Your task to perform on an android device: turn on javascript in the chrome app Image 0: 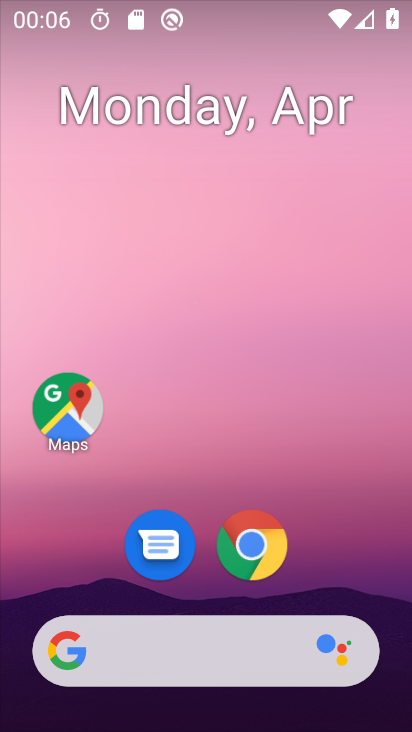
Step 0: drag from (315, 429) to (324, 197)
Your task to perform on an android device: turn on javascript in the chrome app Image 1: 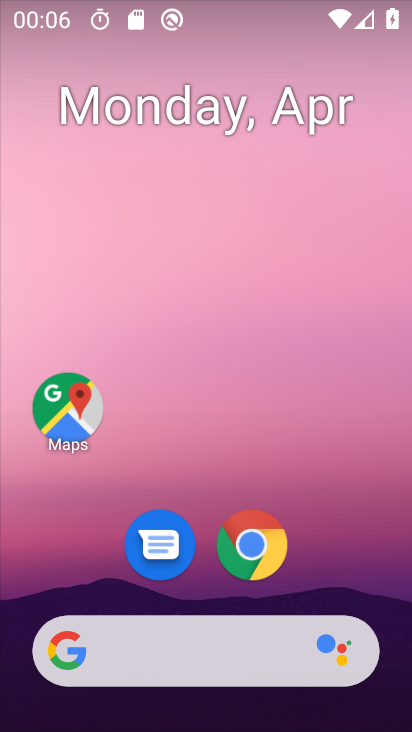
Step 1: drag from (331, 424) to (376, 81)
Your task to perform on an android device: turn on javascript in the chrome app Image 2: 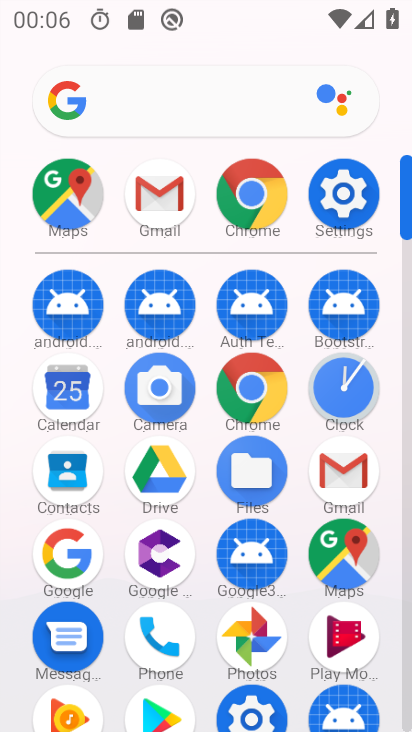
Step 2: click (238, 210)
Your task to perform on an android device: turn on javascript in the chrome app Image 3: 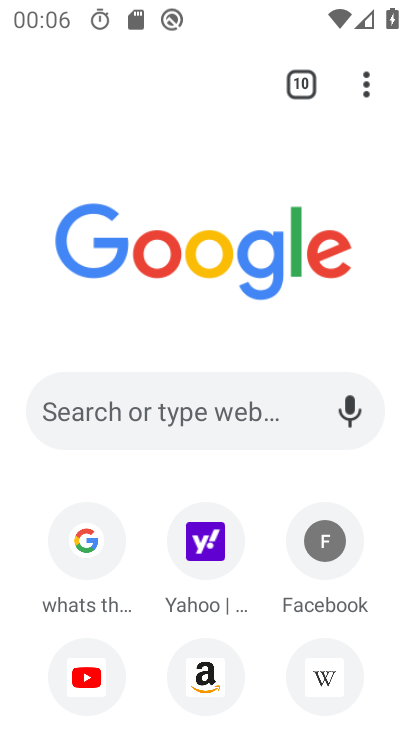
Step 3: click (349, 82)
Your task to perform on an android device: turn on javascript in the chrome app Image 4: 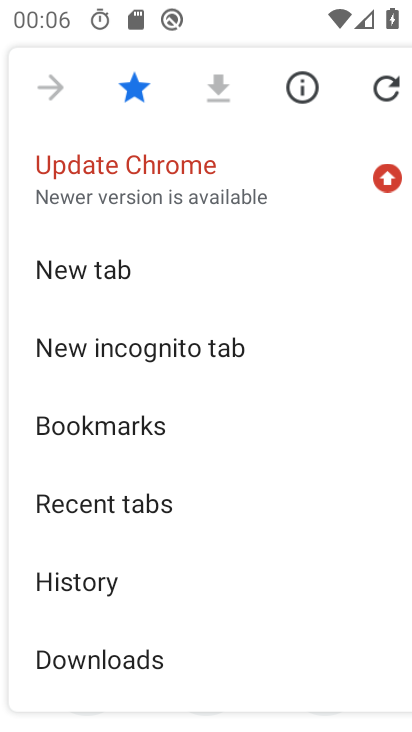
Step 4: drag from (205, 640) to (322, 146)
Your task to perform on an android device: turn on javascript in the chrome app Image 5: 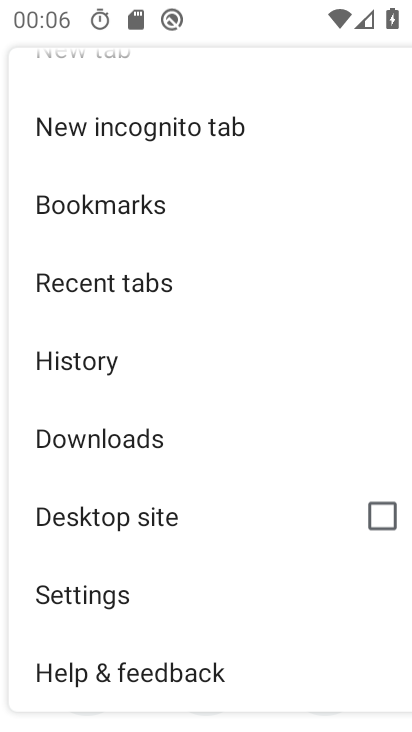
Step 5: click (104, 593)
Your task to perform on an android device: turn on javascript in the chrome app Image 6: 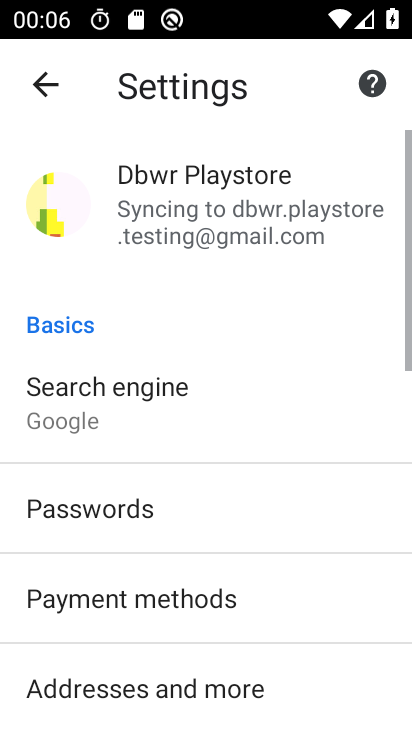
Step 6: drag from (216, 613) to (395, 125)
Your task to perform on an android device: turn on javascript in the chrome app Image 7: 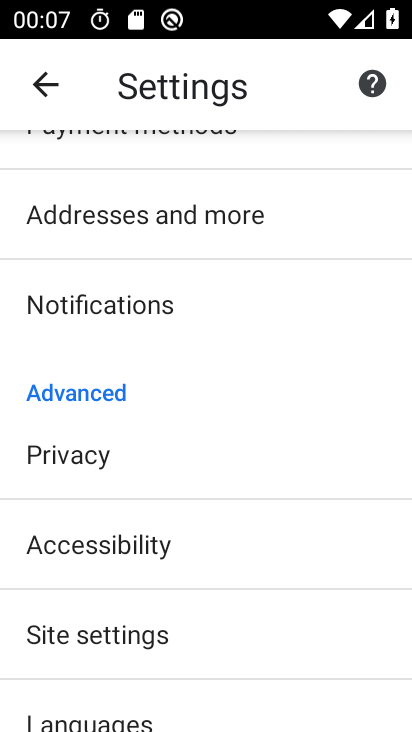
Step 7: drag from (166, 652) to (179, 578)
Your task to perform on an android device: turn on javascript in the chrome app Image 8: 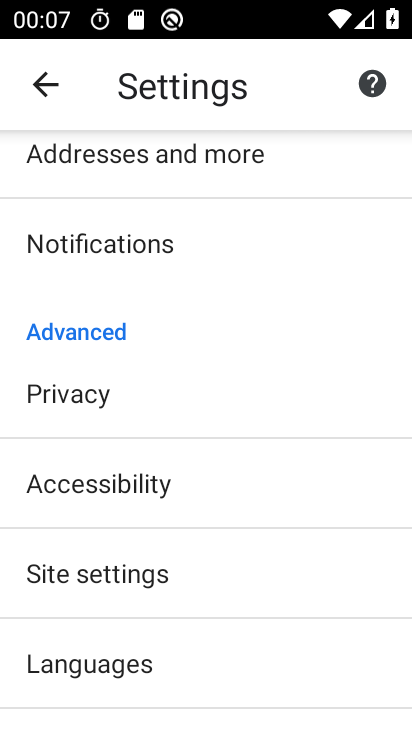
Step 8: click (174, 557)
Your task to perform on an android device: turn on javascript in the chrome app Image 9: 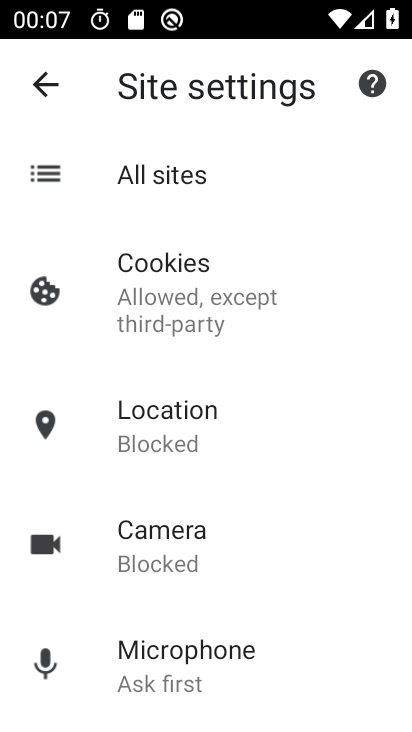
Step 9: drag from (228, 637) to (362, 206)
Your task to perform on an android device: turn on javascript in the chrome app Image 10: 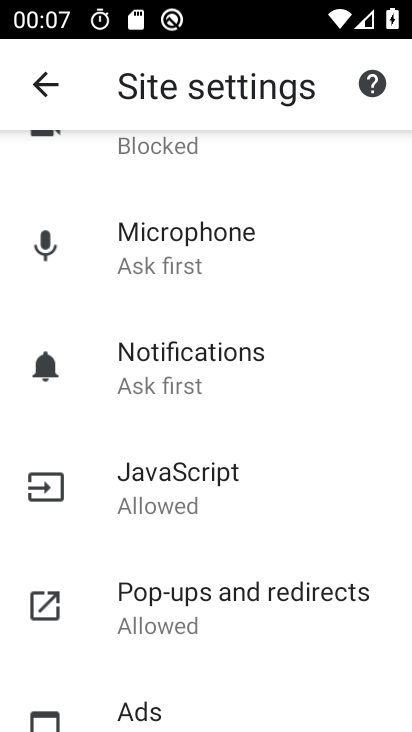
Step 10: click (184, 489)
Your task to perform on an android device: turn on javascript in the chrome app Image 11: 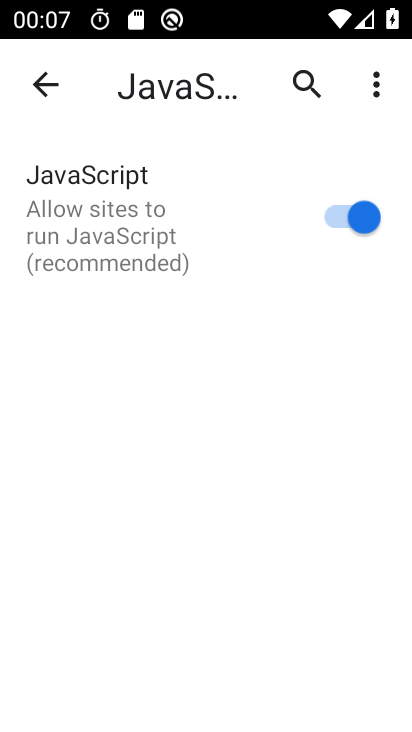
Step 11: task complete